Your task to perform on an android device: snooze an email in the gmail app Image 0: 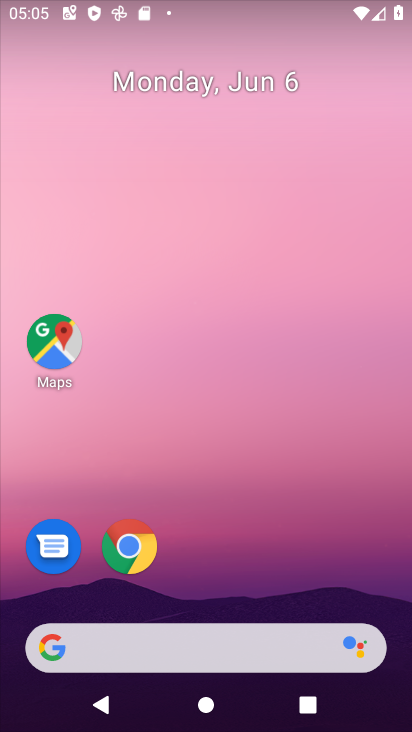
Step 0: task complete